Your task to perform on an android device: change the upload size in google photos Image 0: 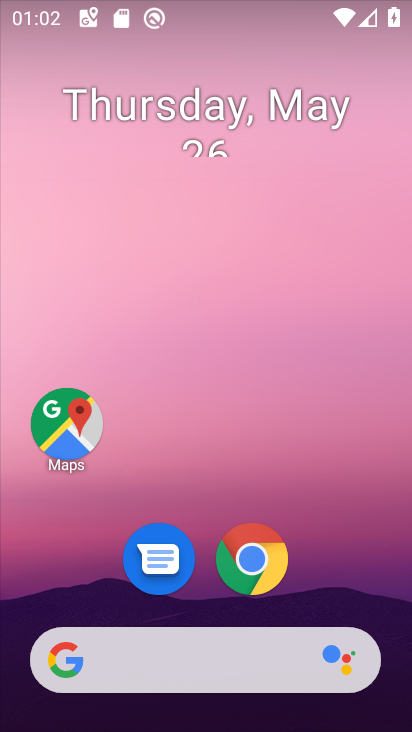
Step 0: press home button
Your task to perform on an android device: change the upload size in google photos Image 1: 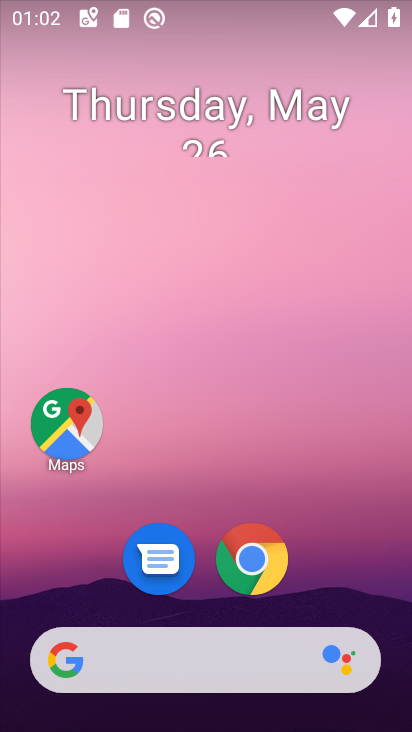
Step 1: drag from (309, 600) to (329, 91)
Your task to perform on an android device: change the upload size in google photos Image 2: 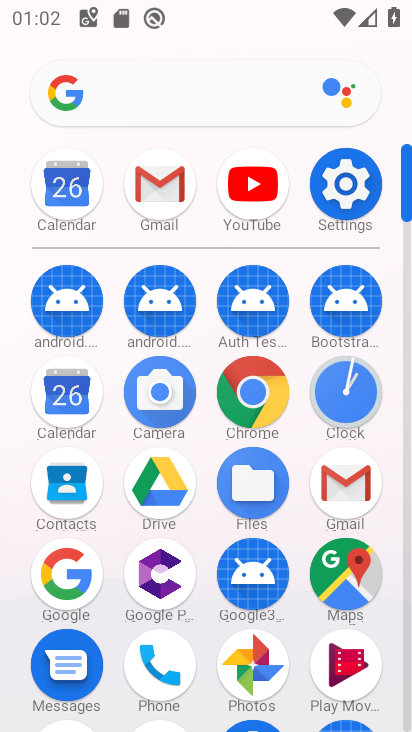
Step 2: click (258, 662)
Your task to perform on an android device: change the upload size in google photos Image 3: 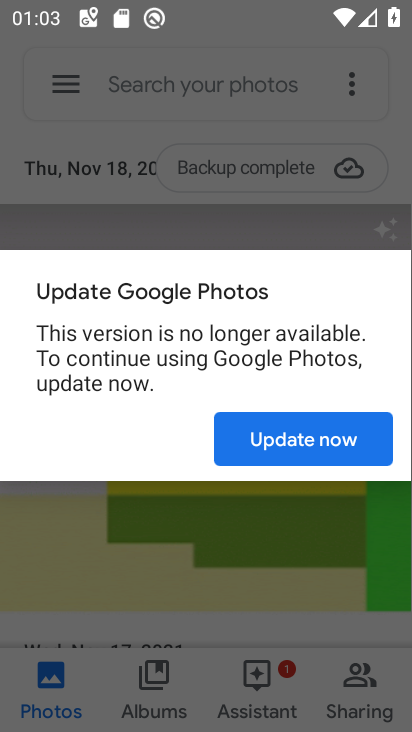
Step 3: click (275, 441)
Your task to perform on an android device: change the upload size in google photos Image 4: 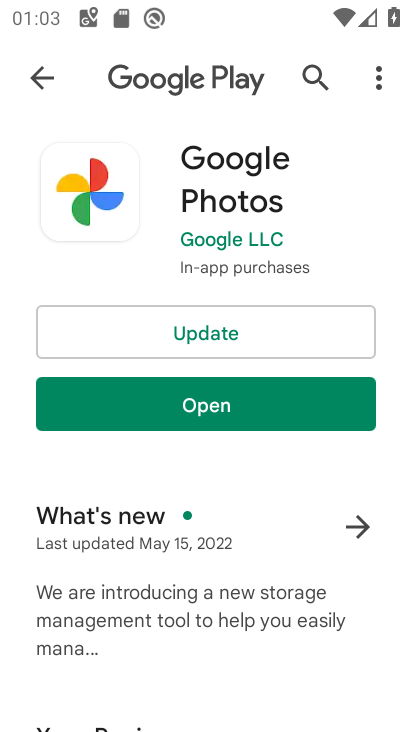
Step 4: click (253, 335)
Your task to perform on an android device: change the upload size in google photos Image 5: 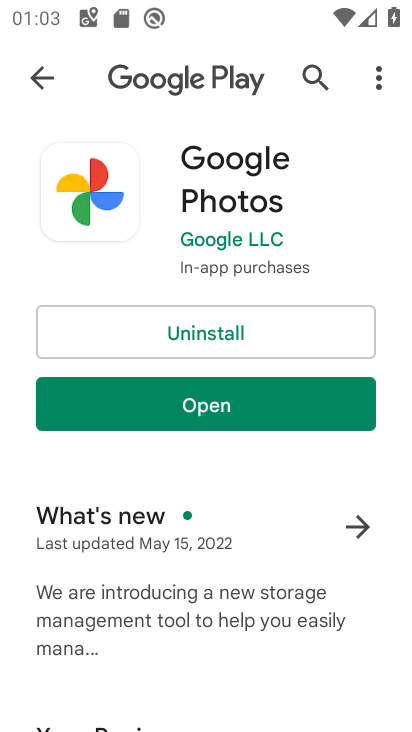
Step 5: click (255, 408)
Your task to perform on an android device: change the upload size in google photos Image 6: 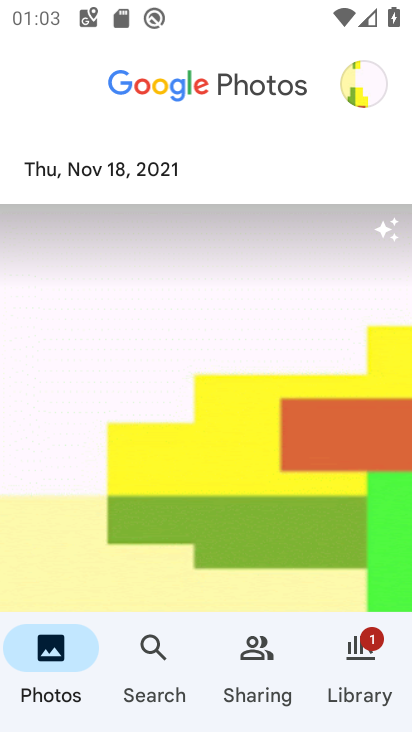
Step 6: click (365, 92)
Your task to perform on an android device: change the upload size in google photos Image 7: 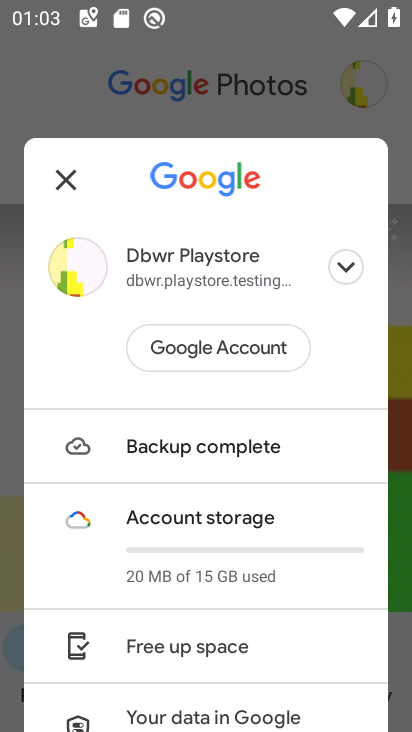
Step 7: drag from (328, 644) to (339, 323)
Your task to perform on an android device: change the upload size in google photos Image 8: 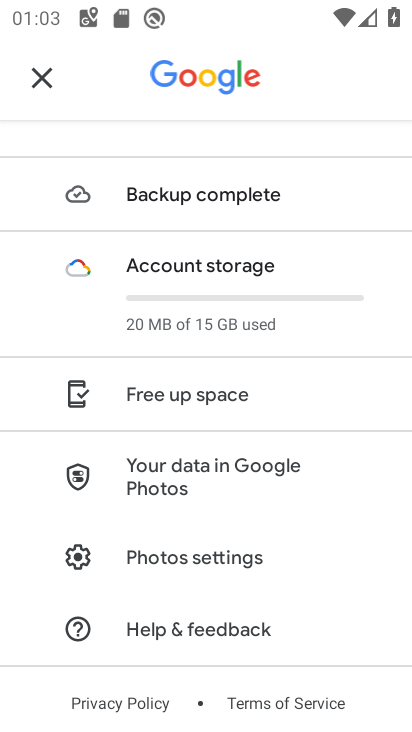
Step 8: click (194, 560)
Your task to perform on an android device: change the upload size in google photos Image 9: 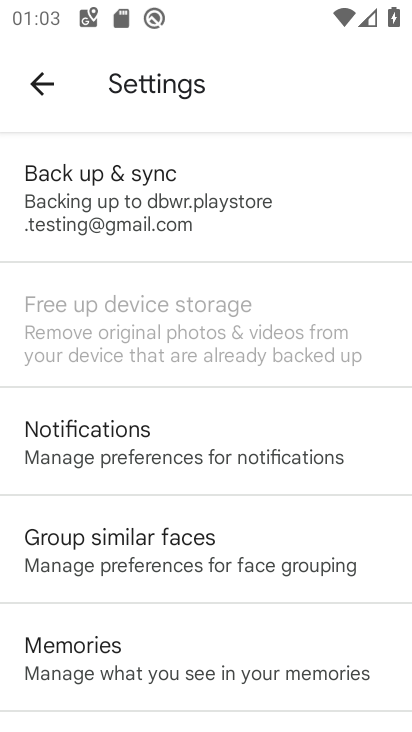
Step 9: drag from (310, 410) to (341, 106)
Your task to perform on an android device: change the upload size in google photos Image 10: 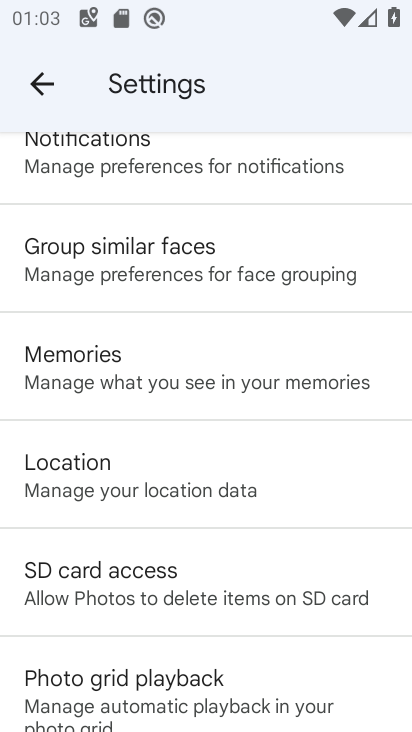
Step 10: drag from (321, 549) to (352, 129)
Your task to perform on an android device: change the upload size in google photos Image 11: 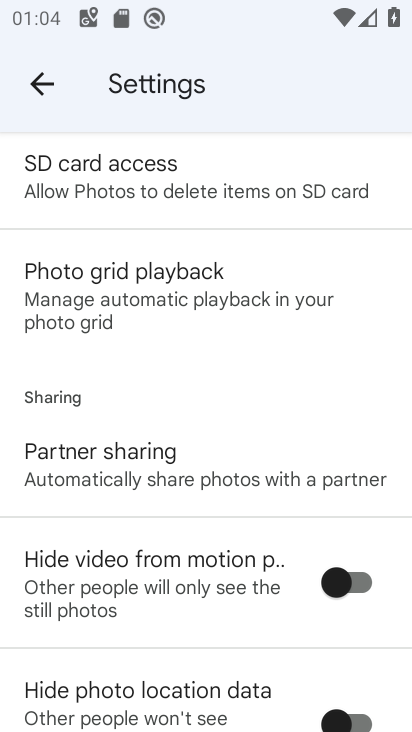
Step 11: drag from (329, 386) to (370, 111)
Your task to perform on an android device: change the upload size in google photos Image 12: 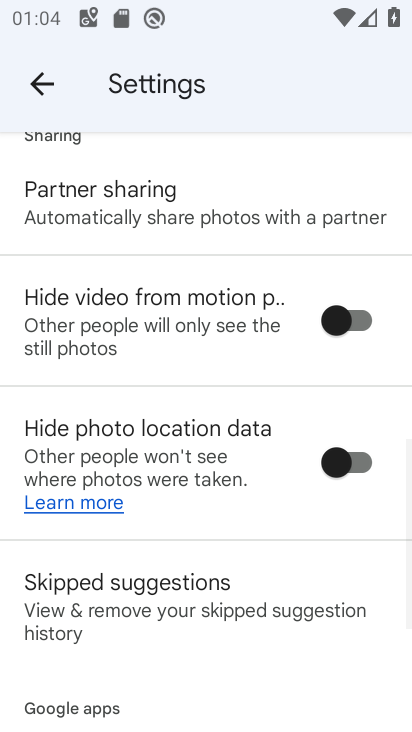
Step 12: drag from (290, 508) to (319, 105)
Your task to perform on an android device: change the upload size in google photos Image 13: 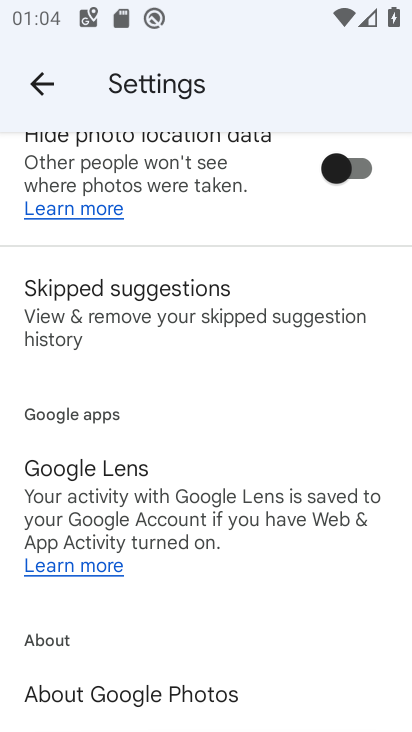
Step 13: drag from (284, 609) to (304, 353)
Your task to perform on an android device: change the upload size in google photos Image 14: 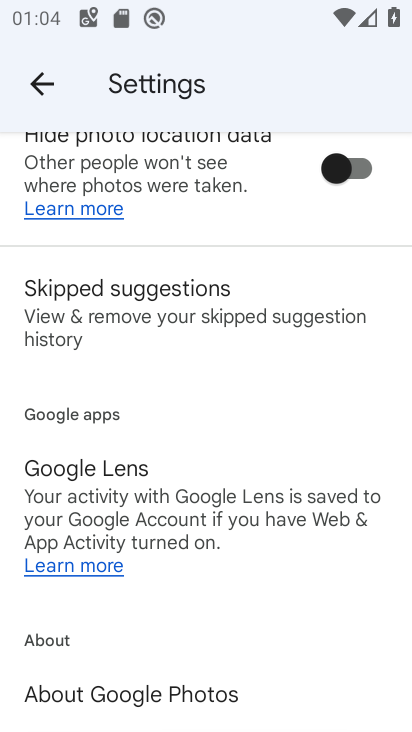
Step 14: drag from (321, 228) to (66, 721)
Your task to perform on an android device: change the upload size in google photos Image 15: 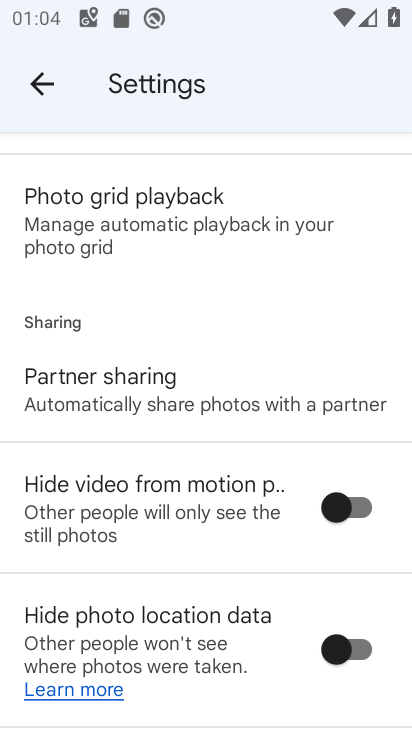
Step 15: drag from (251, 287) to (0, 589)
Your task to perform on an android device: change the upload size in google photos Image 16: 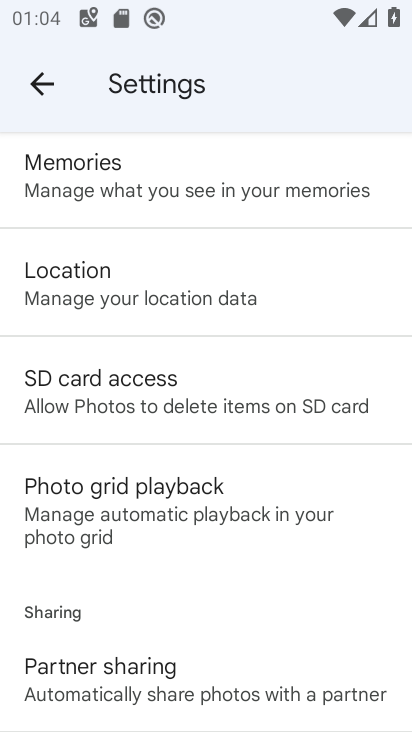
Step 16: drag from (204, 223) to (21, 721)
Your task to perform on an android device: change the upload size in google photos Image 17: 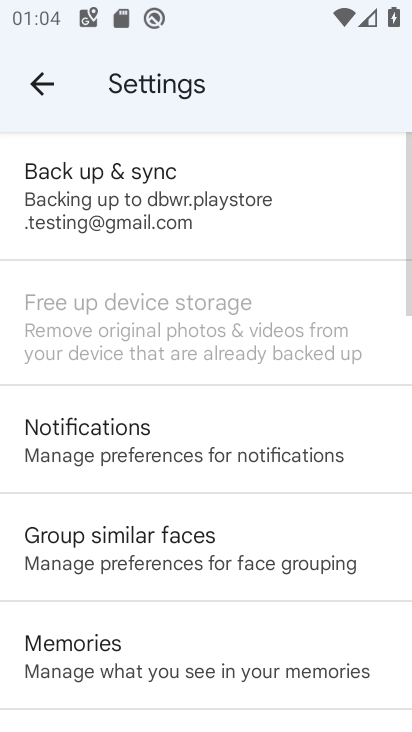
Step 17: drag from (282, 211) to (125, 713)
Your task to perform on an android device: change the upload size in google photos Image 18: 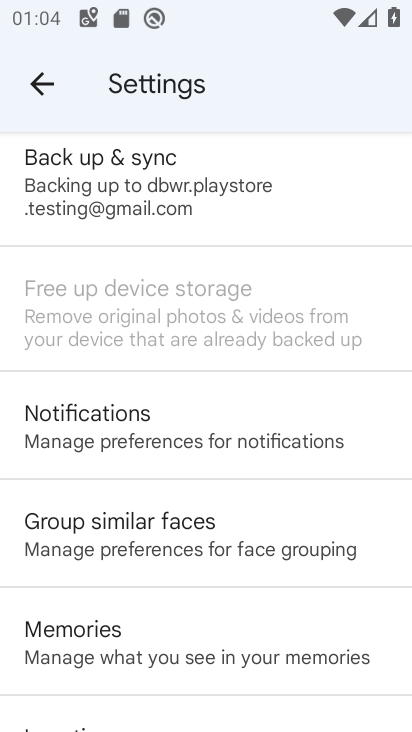
Step 18: click (104, 165)
Your task to perform on an android device: change the upload size in google photos Image 19: 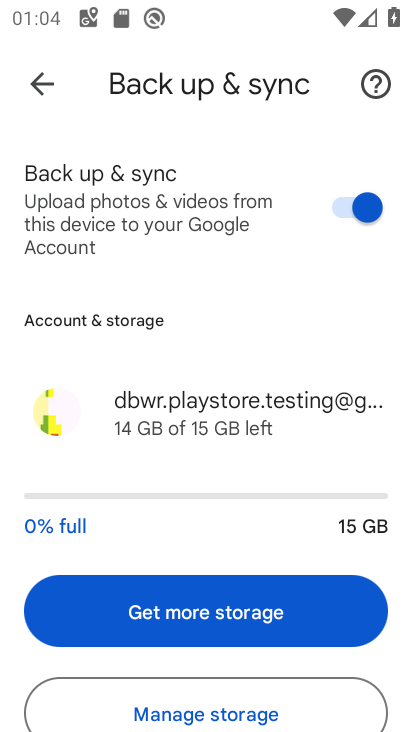
Step 19: drag from (227, 502) to (322, 139)
Your task to perform on an android device: change the upload size in google photos Image 20: 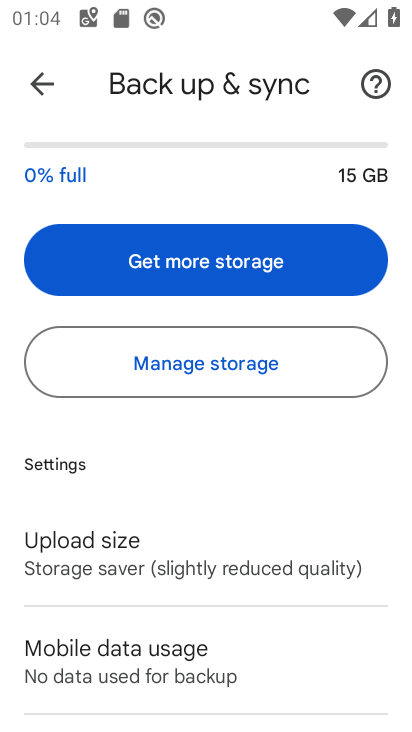
Step 20: click (68, 539)
Your task to perform on an android device: change the upload size in google photos Image 21: 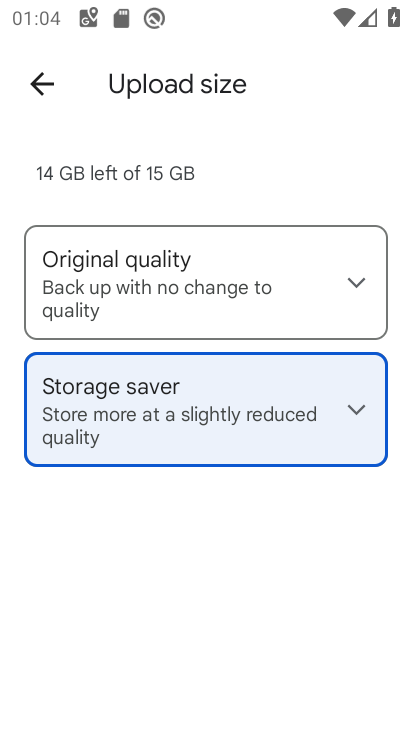
Step 21: click (352, 284)
Your task to perform on an android device: change the upload size in google photos Image 22: 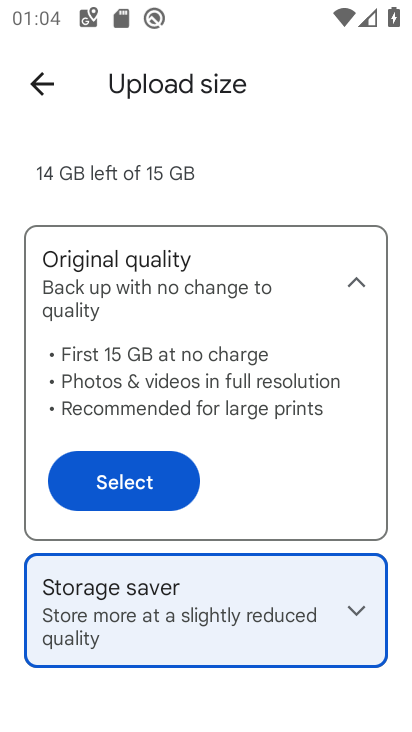
Step 22: click (118, 476)
Your task to perform on an android device: change the upload size in google photos Image 23: 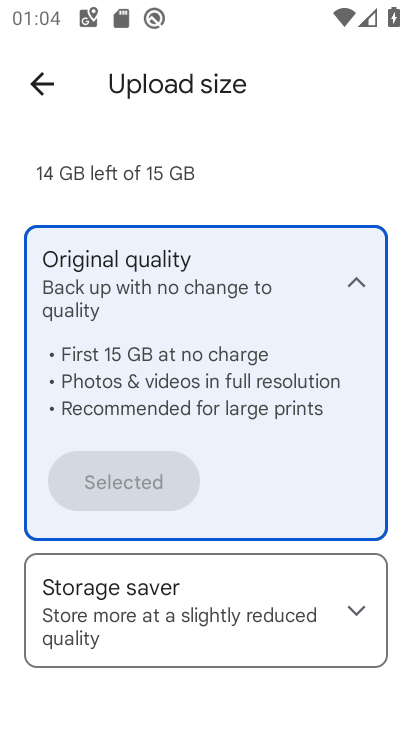
Step 23: click (355, 277)
Your task to perform on an android device: change the upload size in google photos Image 24: 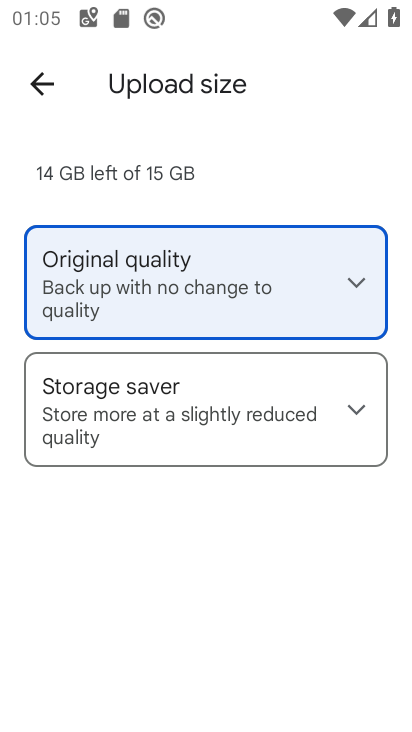
Step 24: task complete